Your task to perform on an android device: delete a single message in the gmail app Image 0: 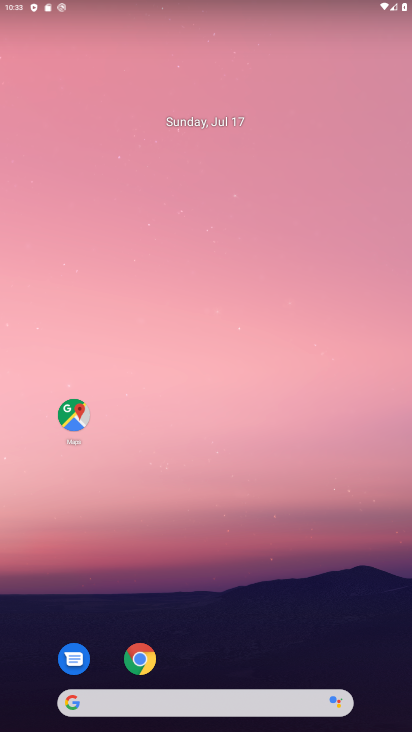
Step 0: drag from (339, 641) to (186, 101)
Your task to perform on an android device: delete a single message in the gmail app Image 1: 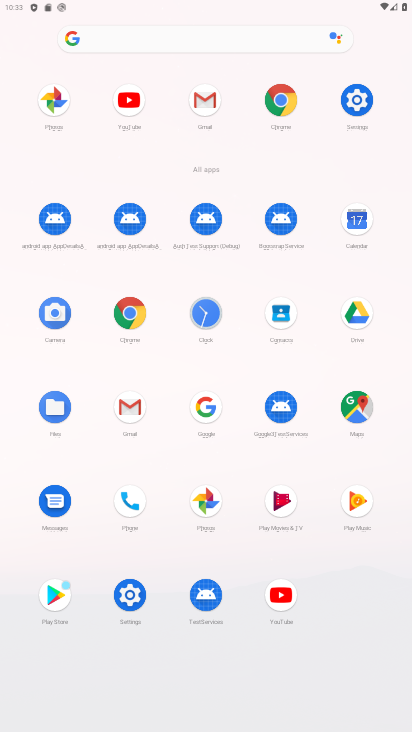
Step 1: click (203, 97)
Your task to perform on an android device: delete a single message in the gmail app Image 2: 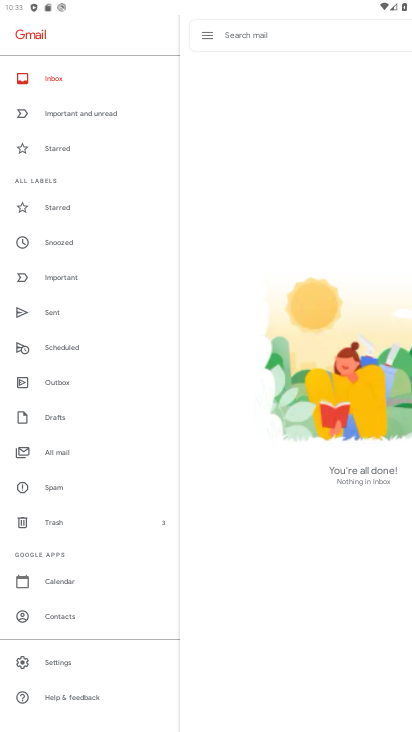
Step 2: click (51, 449)
Your task to perform on an android device: delete a single message in the gmail app Image 3: 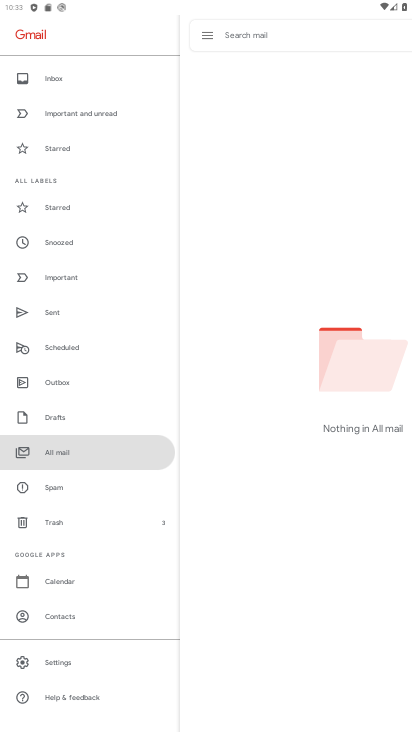
Step 3: task complete